Your task to perform on an android device: turn off sleep mode Image 0: 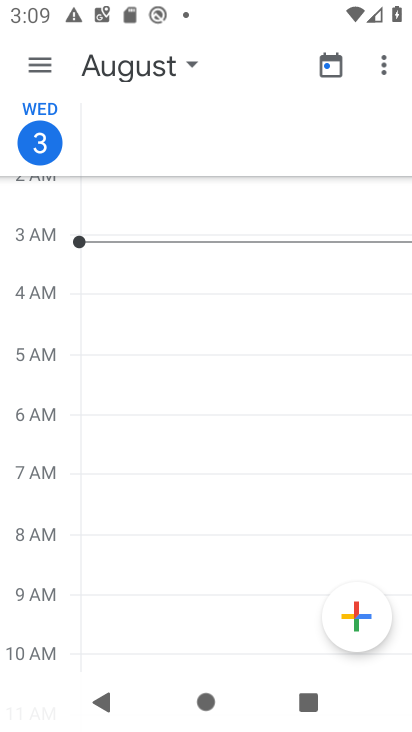
Step 0: press home button
Your task to perform on an android device: turn off sleep mode Image 1: 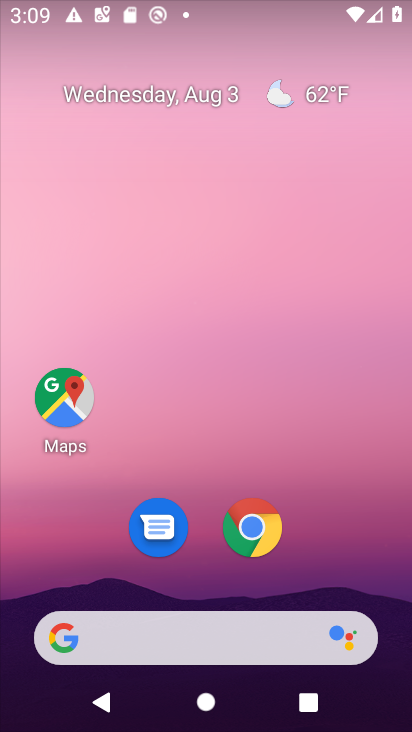
Step 1: drag from (328, 563) to (323, 178)
Your task to perform on an android device: turn off sleep mode Image 2: 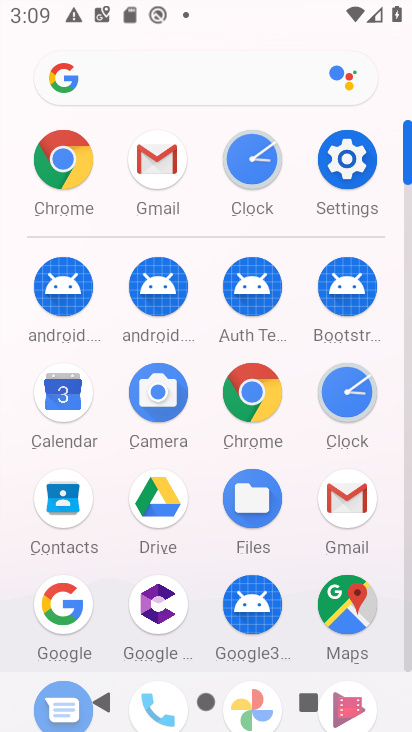
Step 2: click (352, 164)
Your task to perform on an android device: turn off sleep mode Image 3: 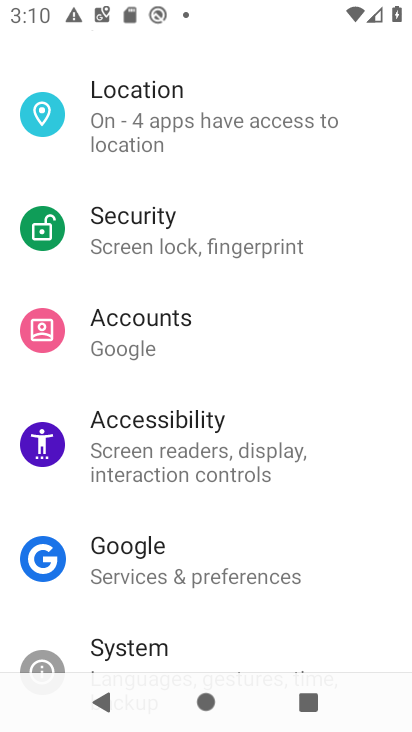
Step 3: drag from (326, 182) to (266, 572)
Your task to perform on an android device: turn off sleep mode Image 4: 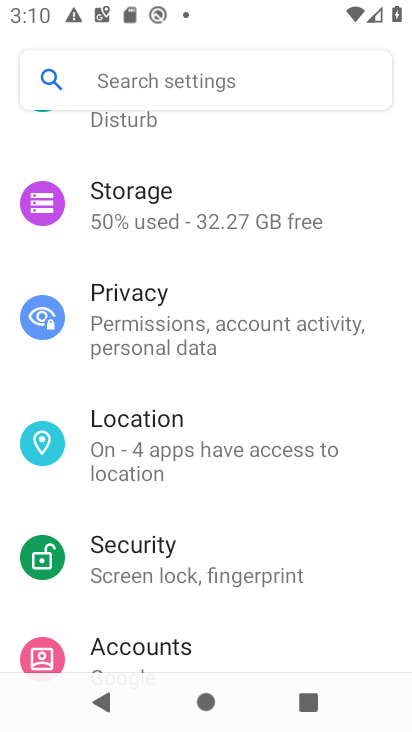
Step 4: drag from (323, 251) to (295, 558)
Your task to perform on an android device: turn off sleep mode Image 5: 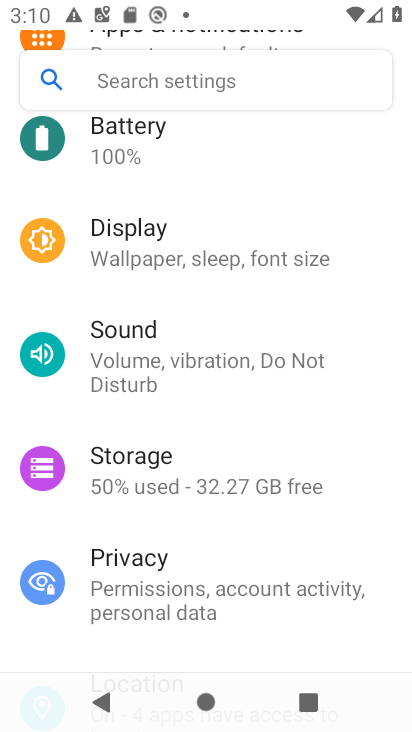
Step 5: click (210, 255)
Your task to perform on an android device: turn off sleep mode Image 6: 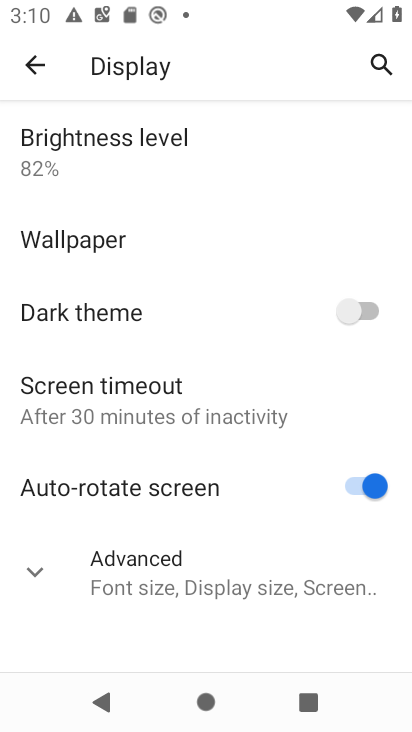
Step 6: click (149, 383)
Your task to perform on an android device: turn off sleep mode Image 7: 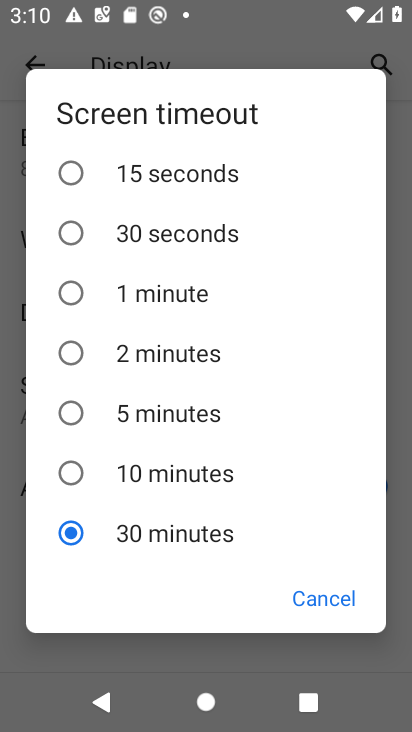
Step 7: task complete